Your task to perform on an android device: Open calendar and show me the third week of next month Image 0: 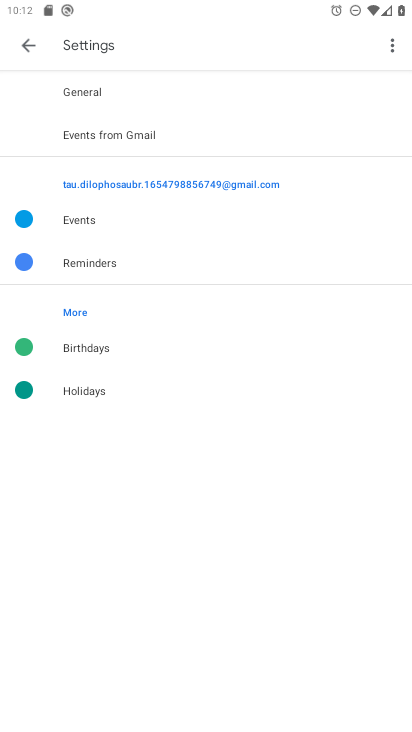
Step 0: press home button
Your task to perform on an android device: Open calendar and show me the third week of next month Image 1: 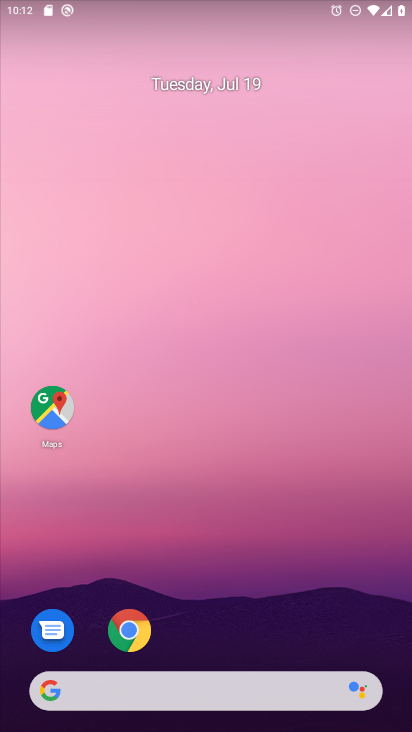
Step 1: drag from (134, 631) to (229, 156)
Your task to perform on an android device: Open calendar and show me the third week of next month Image 2: 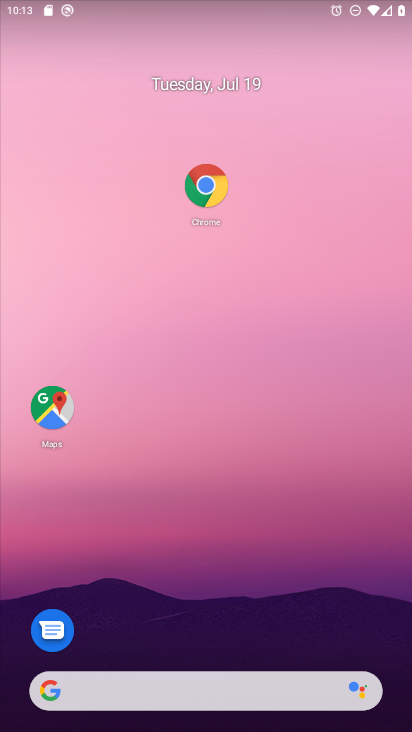
Step 2: drag from (253, 654) to (287, 223)
Your task to perform on an android device: Open calendar and show me the third week of next month Image 3: 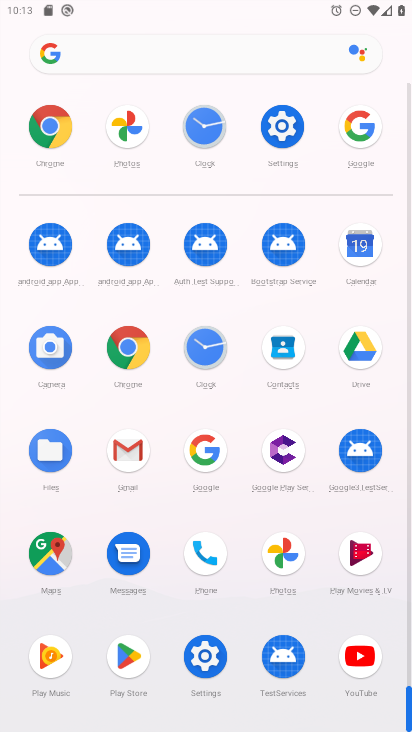
Step 3: click (359, 258)
Your task to perform on an android device: Open calendar and show me the third week of next month Image 4: 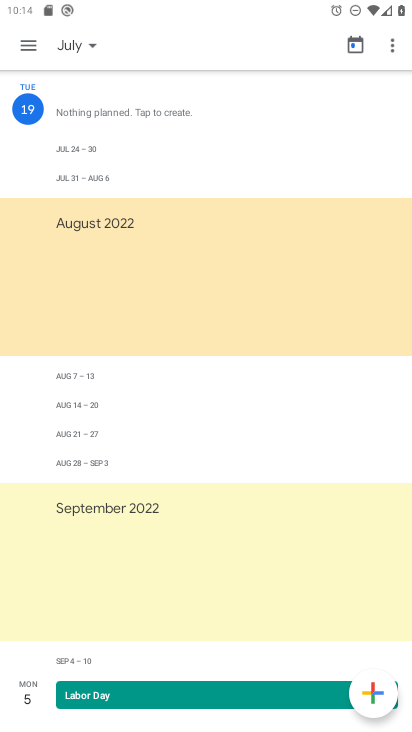
Step 4: click (90, 44)
Your task to perform on an android device: Open calendar and show me the third week of next month Image 5: 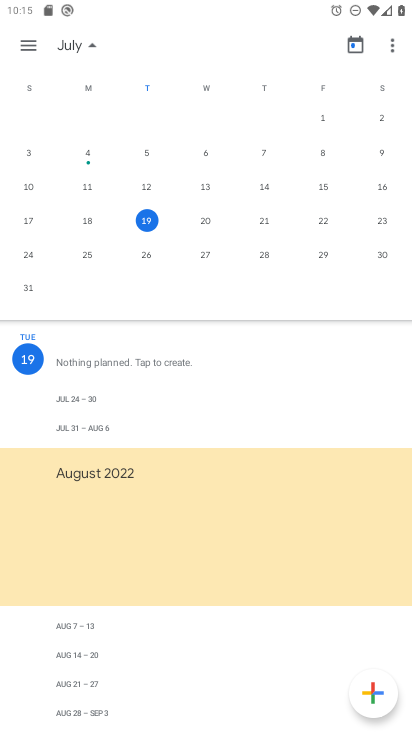
Step 5: drag from (296, 204) to (2, 145)
Your task to perform on an android device: Open calendar and show me the third week of next month Image 6: 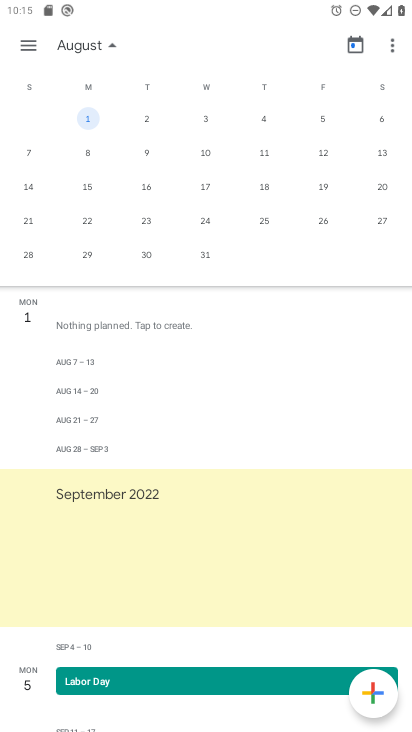
Step 6: click (87, 195)
Your task to perform on an android device: Open calendar and show me the third week of next month Image 7: 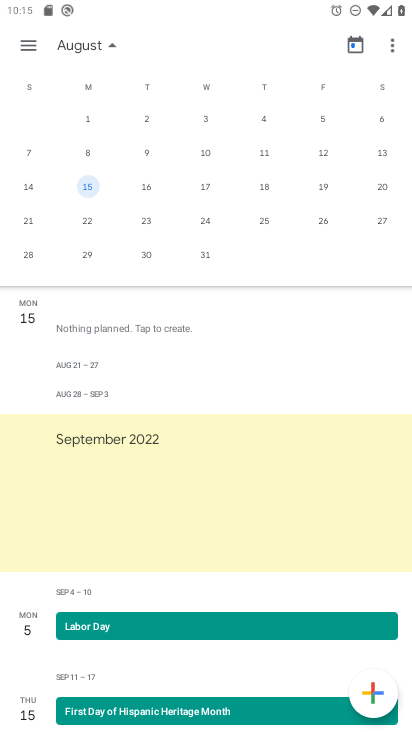
Step 7: task complete